Your task to perform on an android device: open wifi settings Image 0: 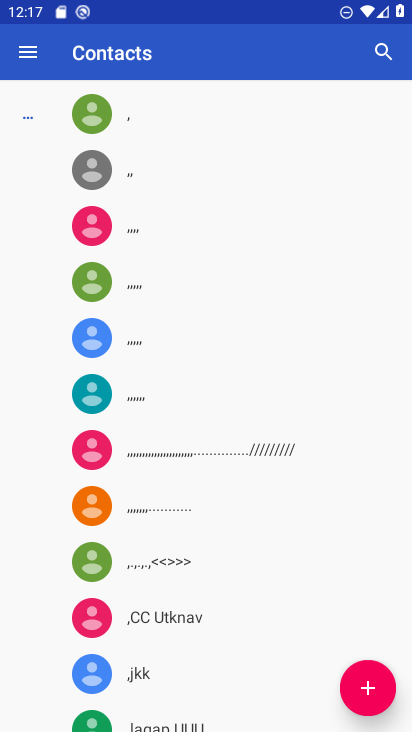
Step 0: press home button
Your task to perform on an android device: open wifi settings Image 1: 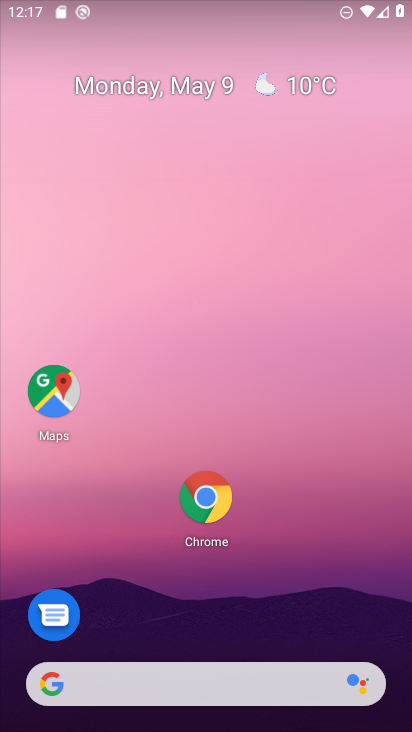
Step 1: drag from (305, 578) to (284, 151)
Your task to perform on an android device: open wifi settings Image 2: 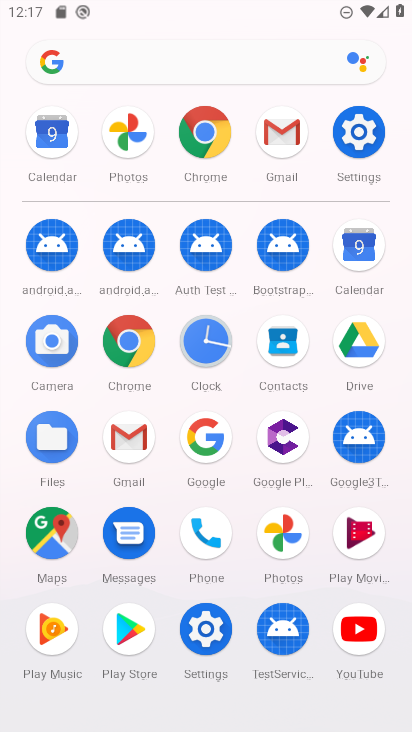
Step 2: click (354, 125)
Your task to perform on an android device: open wifi settings Image 3: 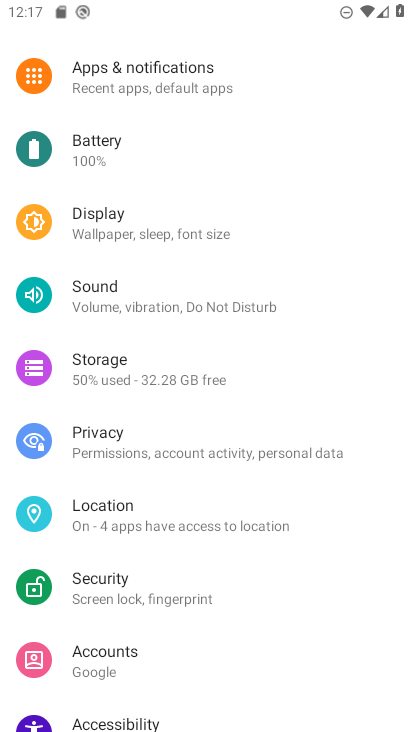
Step 3: drag from (238, 139) to (188, 582)
Your task to perform on an android device: open wifi settings Image 4: 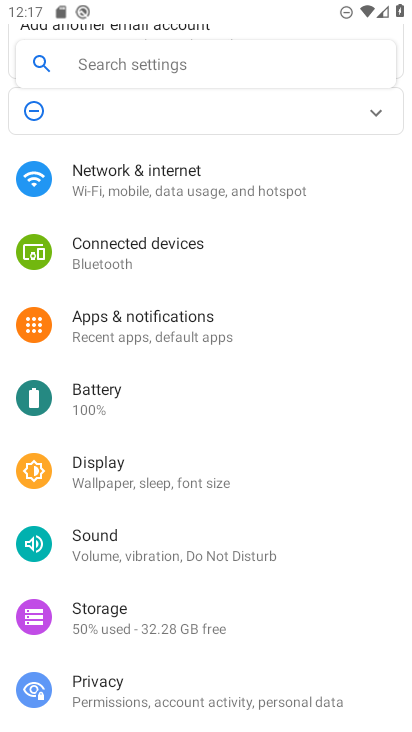
Step 4: click (141, 192)
Your task to perform on an android device: open wifi settings Image 5: 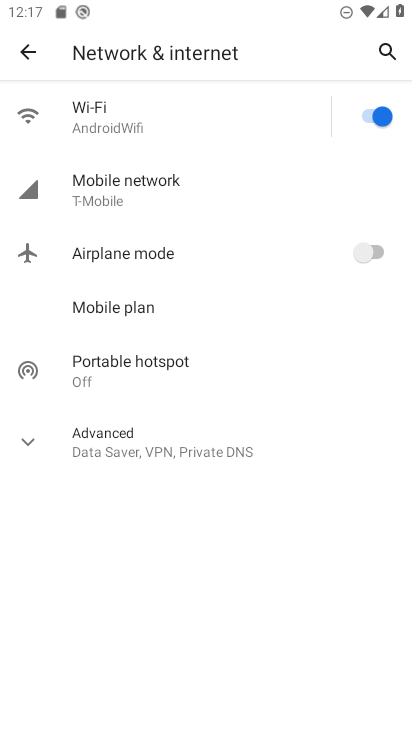
Step 5: click (175, 134)
Your task to perform on an android device: open wifi settings Image 6: 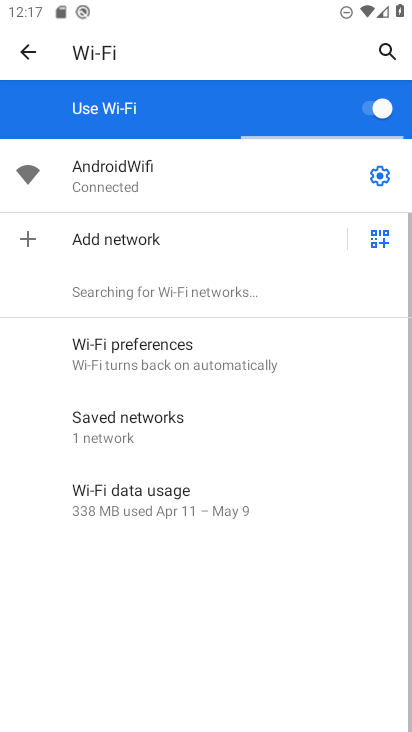
Step 6: click (382, 170)
Your task to perform on an android device: open wifi settings Image 7: 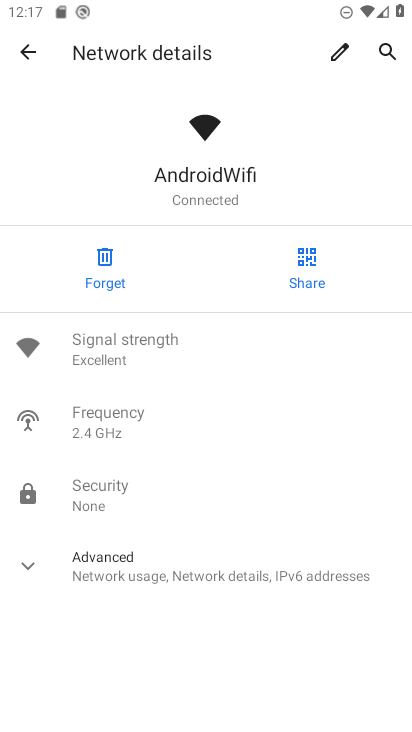
Step 7: task complete